Your task to perform on an android device: check android version Image 0: 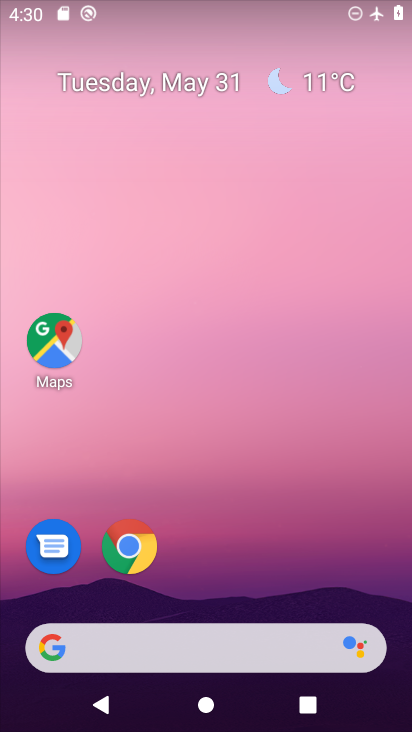
Step 0: drag from (319, 528) to (263, 1)
Your task to perform on an android device: check android version Image 1: 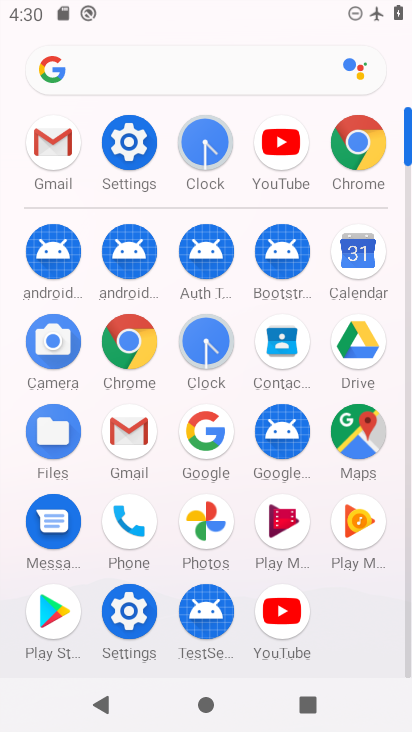
Step 1: click (144, 141)
Your task to perform on an android device: check android version Image 2: 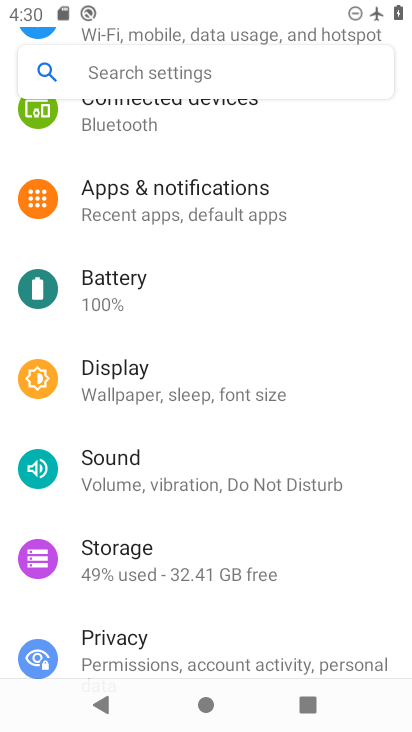
Step 2: drag from (216, 564) to (204, 0)
Your task to perform on an android device: check android version Image 3: 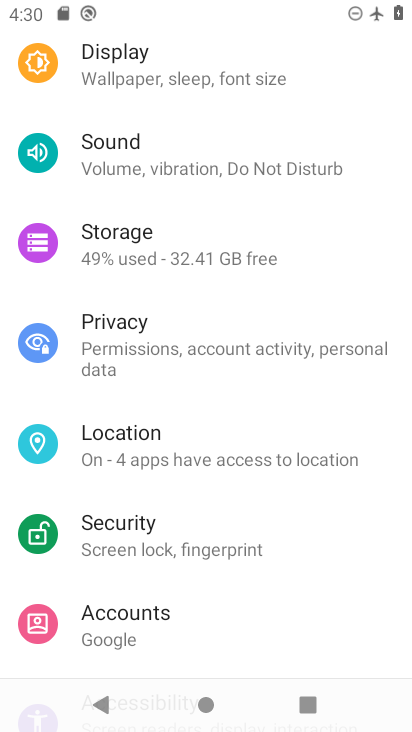
Step 3: drag from (258, 299) to (249, 3)
Your task to perform on an android device: check android version Image 4: 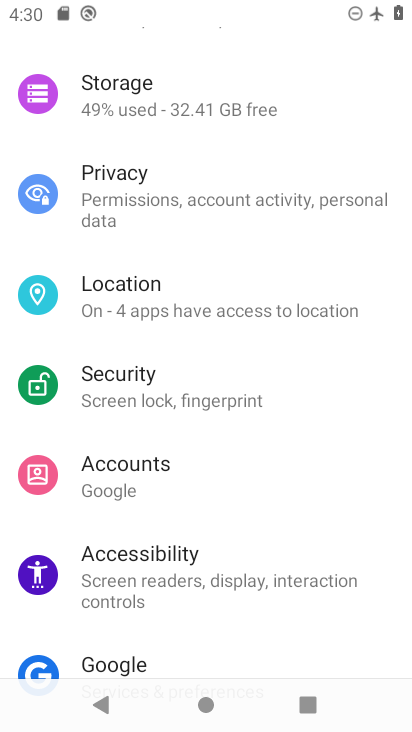
Step 4: drag from (210, 485) to (204, 16)
Your task to perform on an android device: check android version Image 5: 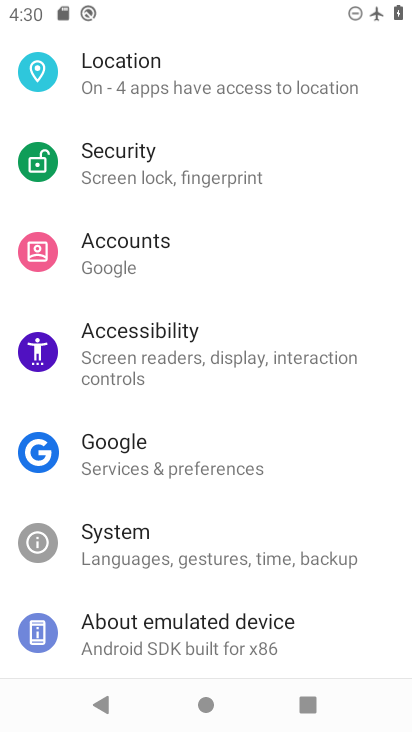
Step 5: click (261, 641)
Your task to perform on an android device: check android version Image 6: 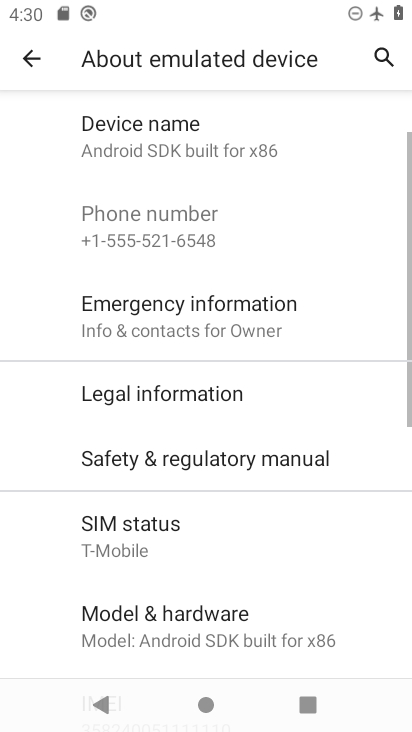
Step 6: drag from (281, 453) to (271, 0)
Your task to perform on an android device: check android version Image 7: 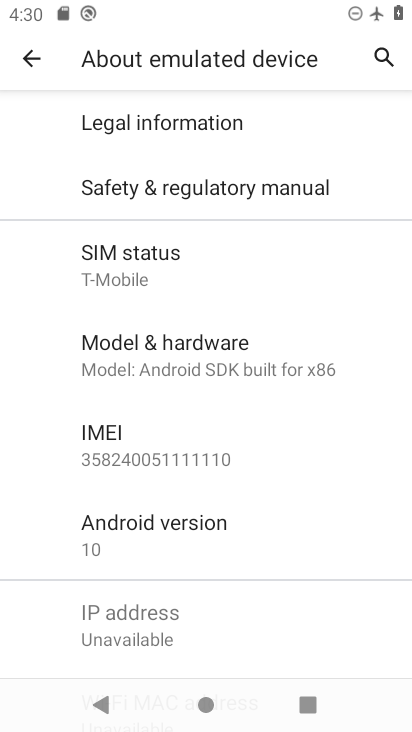
Step 7: click (227, 526)
Your task to perform on an android device: check android version Image 8: 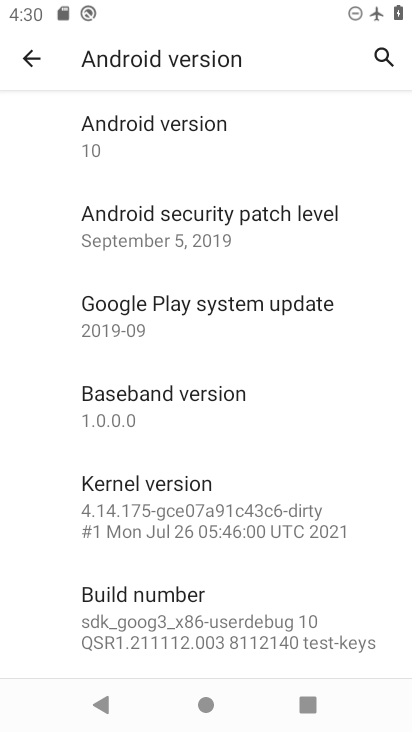
Step 8: task complete